Your task to perform on an android device: Go to Amazon Image 0: 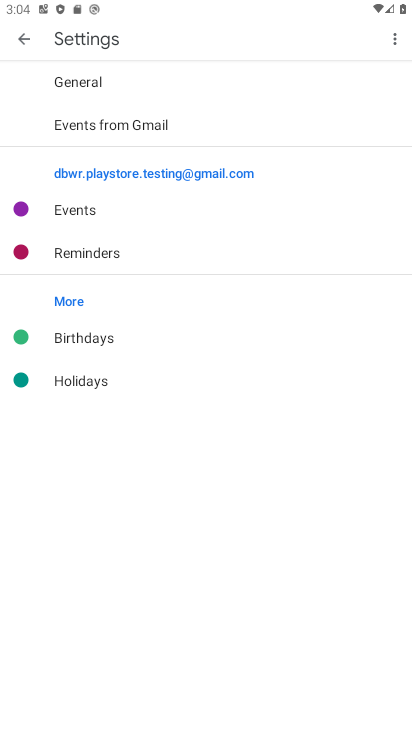
Step 0: press home button
Your task to perform on an android device: Go to Amazon Image 1: 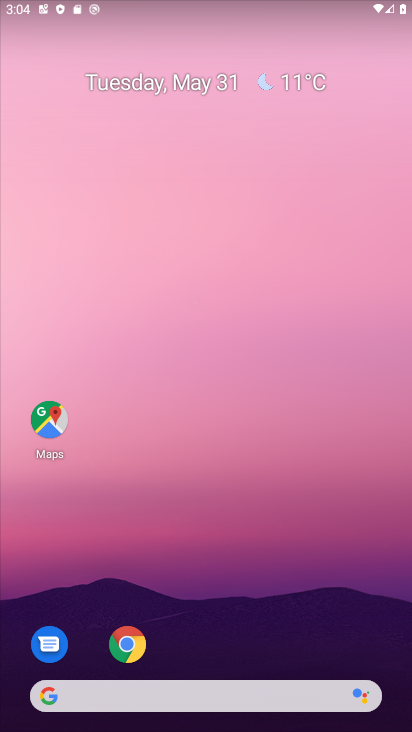
Step 1: click (124, 655)
Your task to perform on an android device: Go to Amazon Image 2: 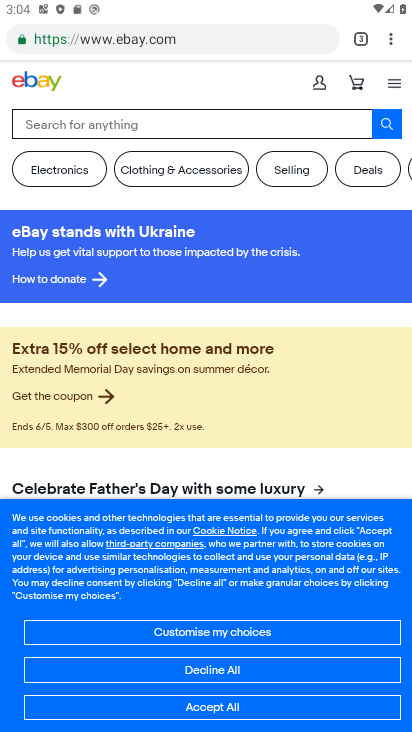
Step 2: click (360, 37)
Your task to perform on an android device: Go to Amazon Image 3: 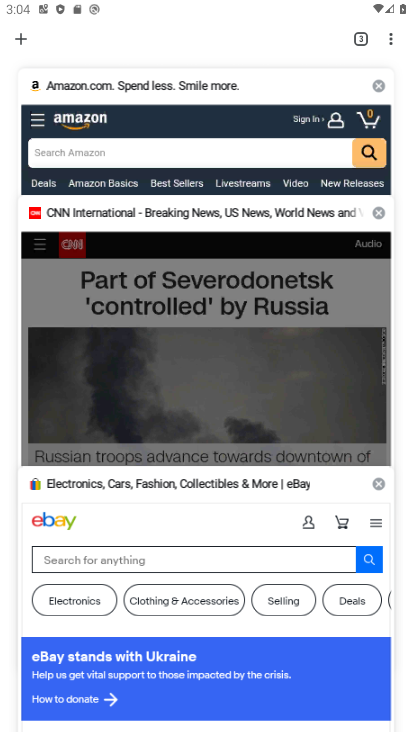
Step 3: click (167, 103)
Your task to perform on an android device: Go to Amazon Image 4: 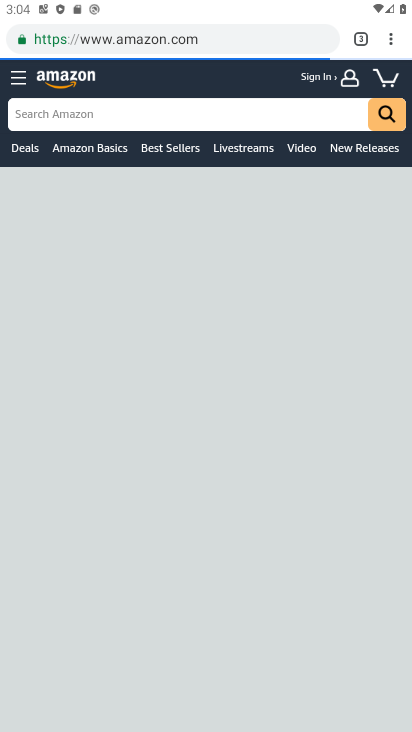
Step 4: task complete